Your task to perform on an android device: set the timer Image 0: 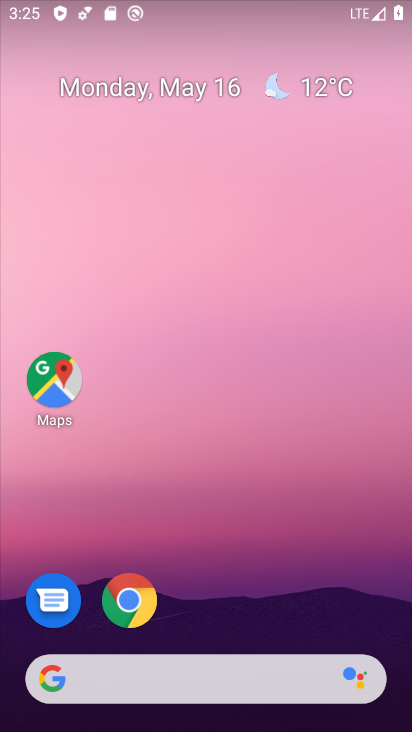
Step 0: drag from (301, 532) to (249, 55)
Your task to perform on an android device: set the timer Image 1: 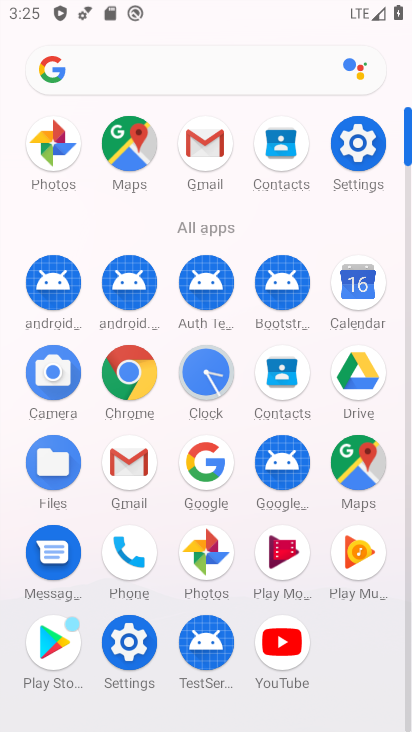
Step 1: click (216, 372)
Your task to perform on an android device: set the timer Image 2: 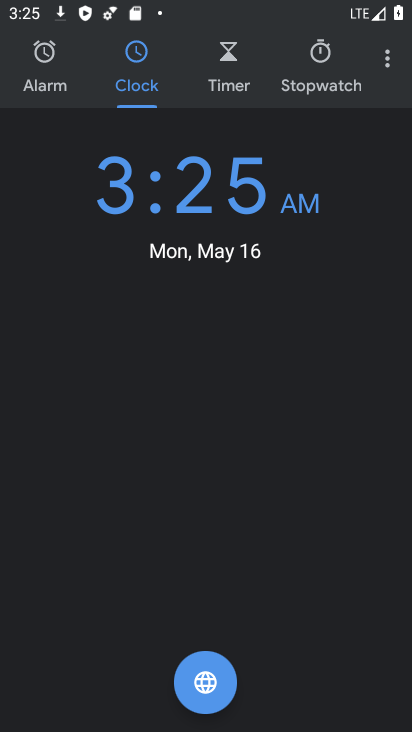
Step 2: click (246, 67)
Your task to perform on an android device: set the timer Image 3: 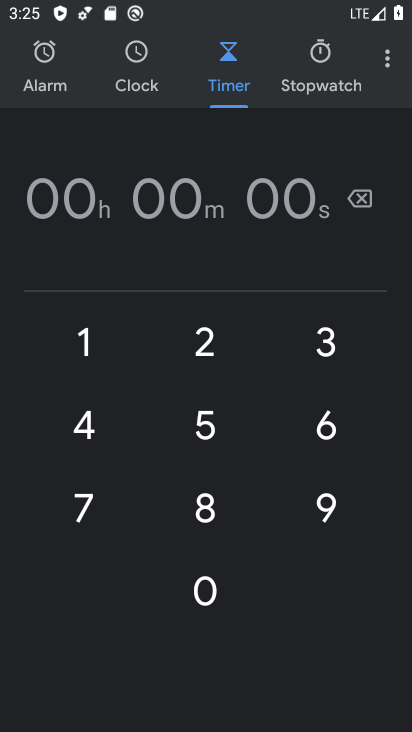
Step 3: click (199, 420)
Your task to perform on an android device: set the timer Image 4: 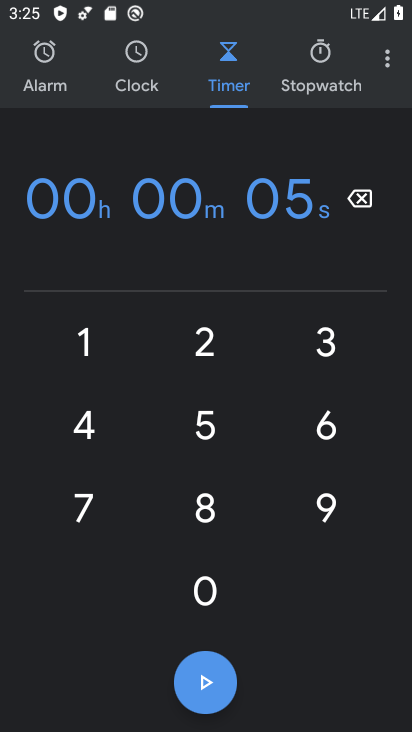
Step 4: task complete